Your task to perform on an android device: Is it going to rain this weekend? Image 0: 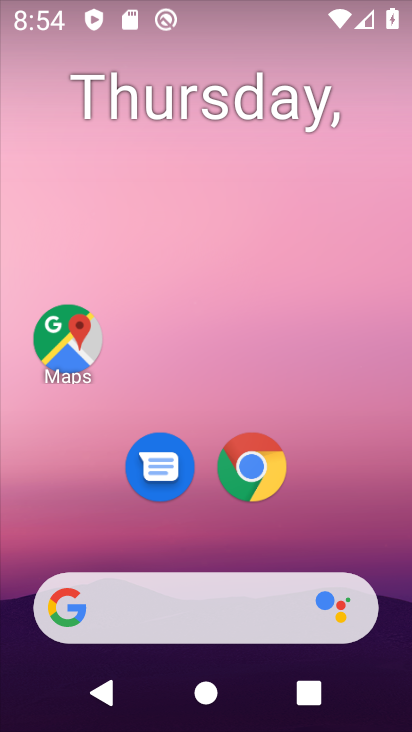
Step 0: drag from (349, 483) to (366, 2)
Your task to perform on an android device: Is it going to rain this weekend? Image 1: 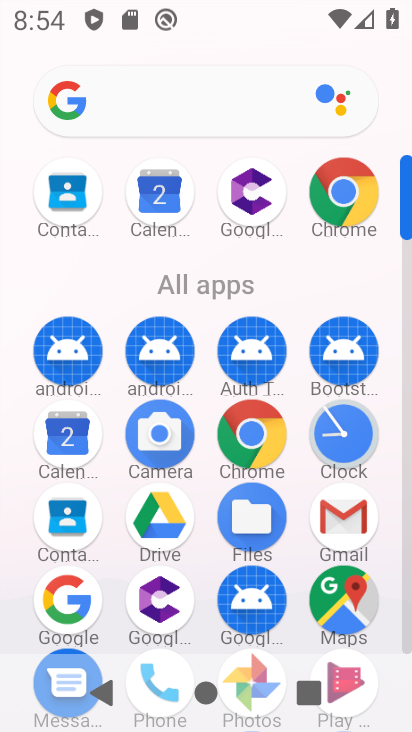
Step 1: press home button
Your task to perform on an android device: Is it going to rain this weekend? Image 2: 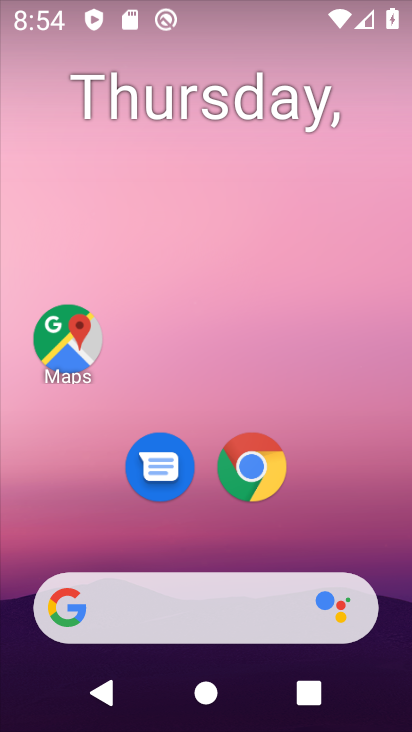
Step 2: click (61, 581)
Your task to perform on an android device: Is it going to rain this weekend? Image 3: 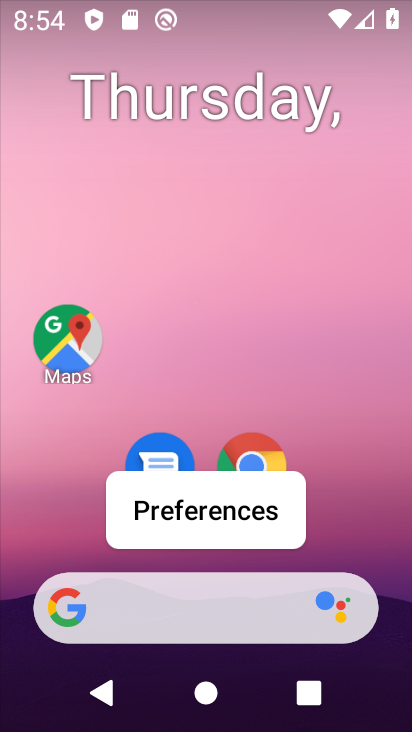
Step 3: click (55, 617)
Your task to perform on an android device: Is it going to rain this weekend? Image 4: 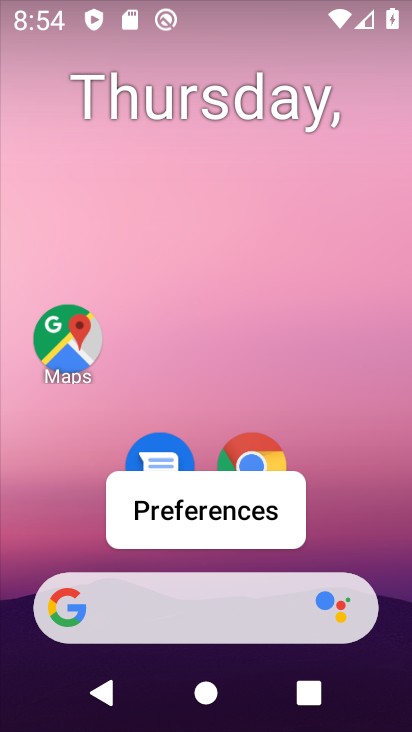
Step 4: click (55, 616)
Your task to perform on an android device: Is it going to rain this weekend? Image 5: 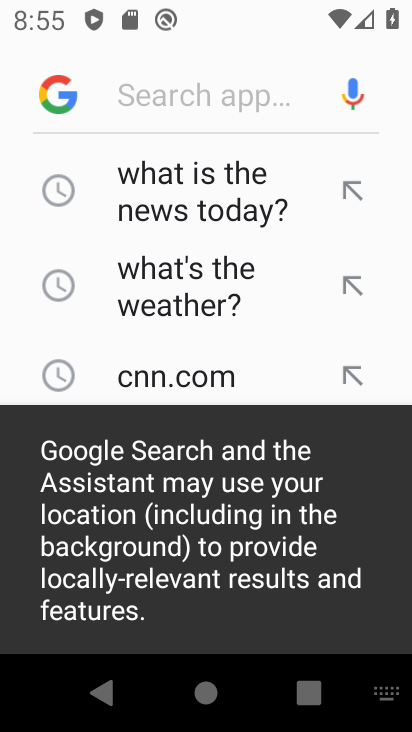
Step 5: click (83, 67)
Your task to perform on an android device: Is it going to rain this weekend? Image 6: 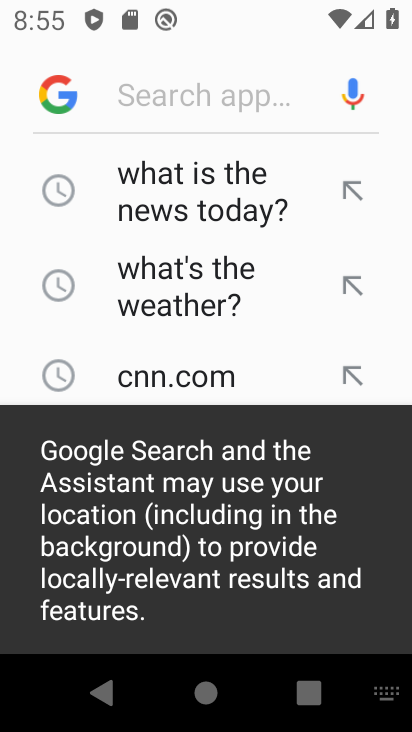
Step 6: click (60, 93)
Your task to perform on an android device: Is it going to rain this weekend? Image 7: 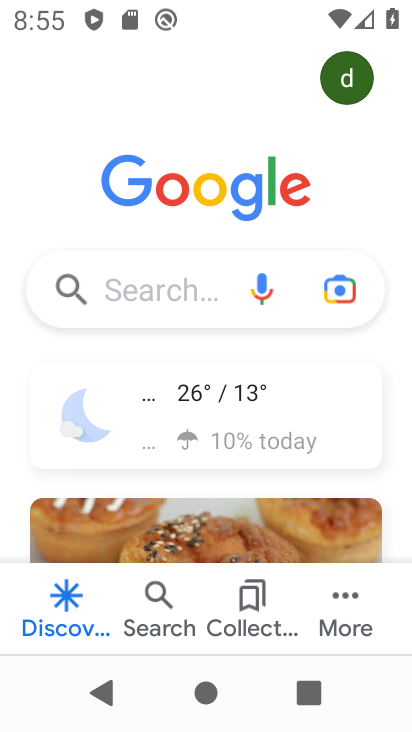
Step 7: click (240, 425)
Your task to perform on an android device: Is it going to rain this weekend? Image 8: 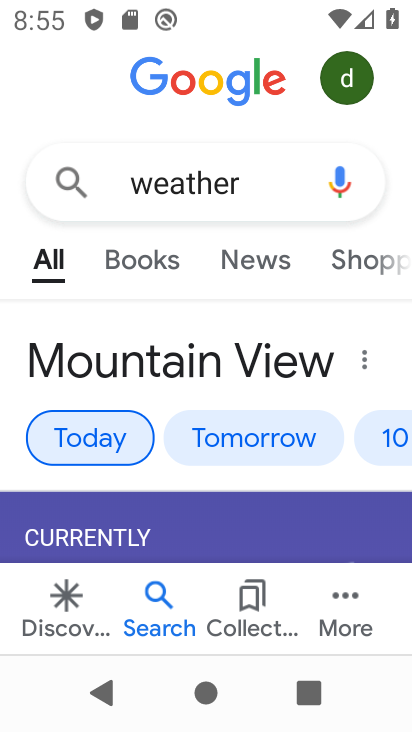
Step 8: click (389, 435)
Your task to perform on an android device: Is it going to rain this weekend? Image 9: 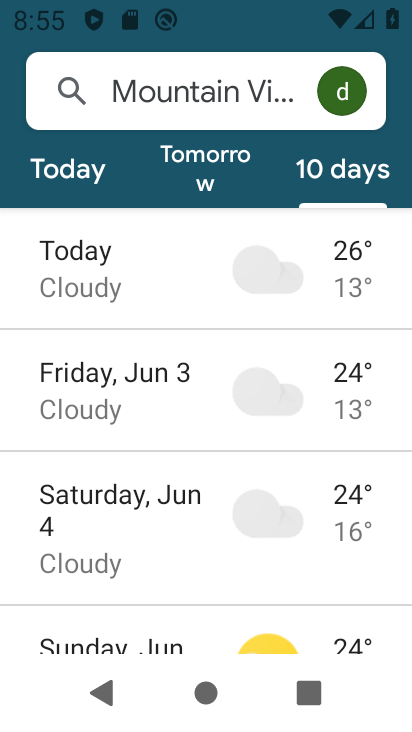
Step 9: task complete